Your task to perform on an android device: Play the last video I watched on Youtube Image 0: 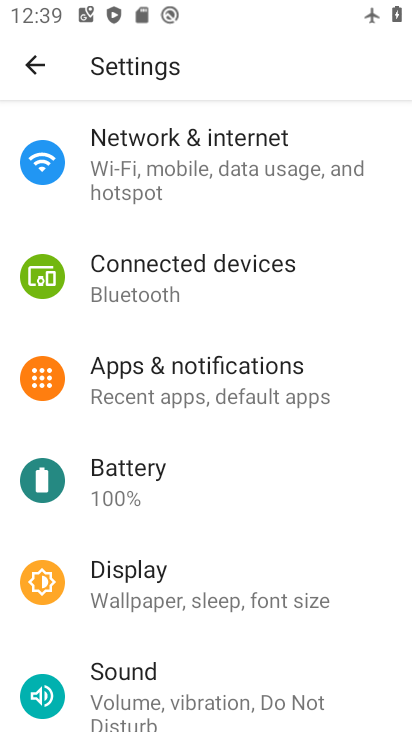
Step 0: press home button
Your task to perform on an android device: Play the last video I watched on Youtube Image 1: 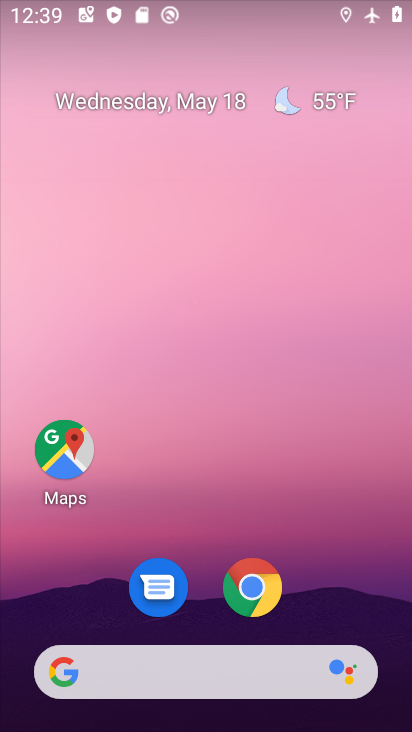
Step 1: drag from (308, 595) to (331, 731)
Your task to perform on an android device: Play the last video I watched on Youtube Image 2: 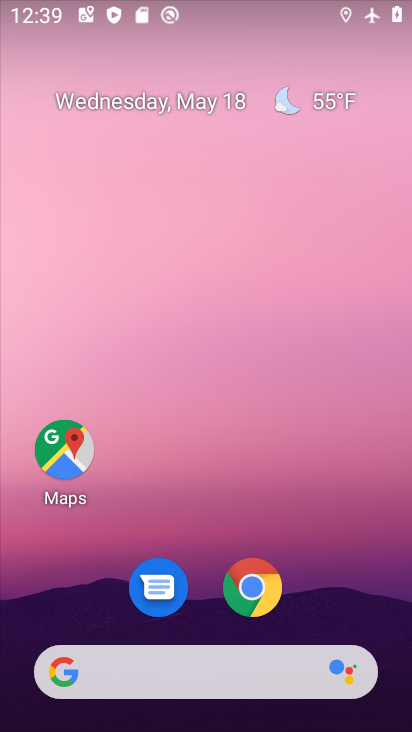
Step 2: drag from (325, 671) to (340, 335)
Your task to perform on an android device: Play the last video I watched on Youtube Image 3: 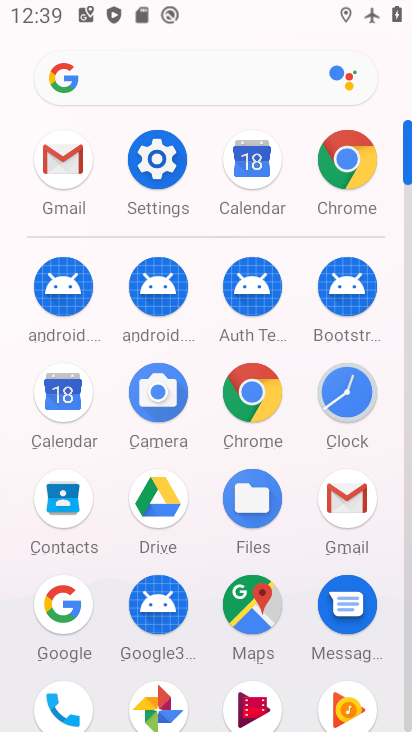
Step 3: drag from (241, 497) to (223, 312)
Your task to perform on an android device: Play the last video I watched on Youtube Image 4: 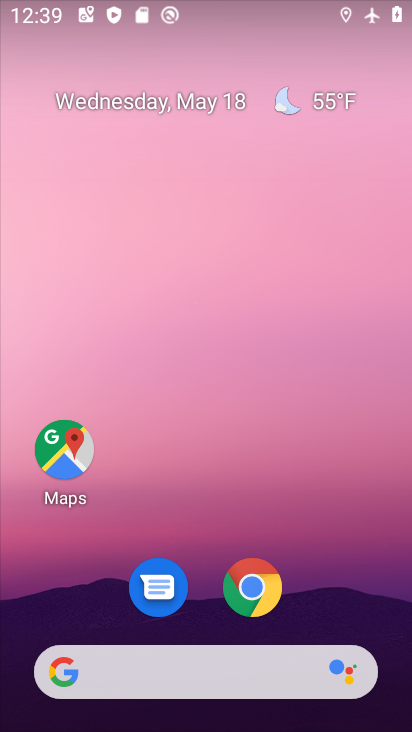
Step 4: drag from (318, 667) to (296, 485)
Your task to perform on an android device: Play the last video I watched on Youtube Image 5: 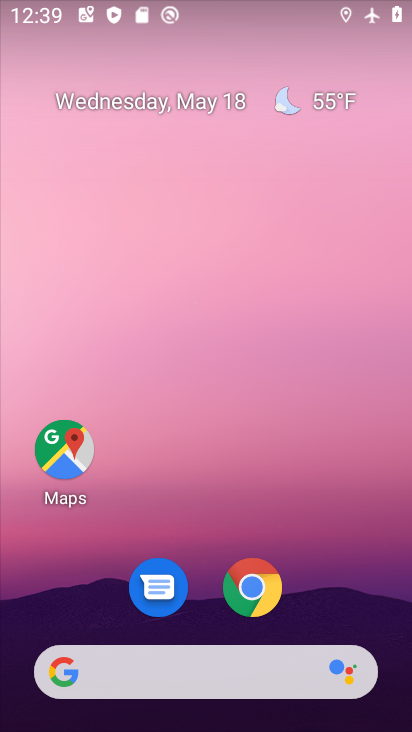
Step 5: drag from (297, 589) to (240, 22)
Your task to perform on an android device: Play the last video I watched on Youtube Image 6: 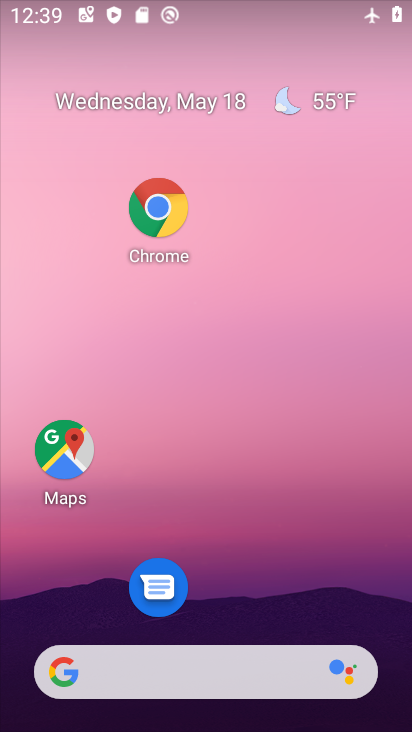
Step 6: drag from (298, 580) to (275, 20)
Your task to perform on an android device: Play the last video I watched on Youtube Image 7: 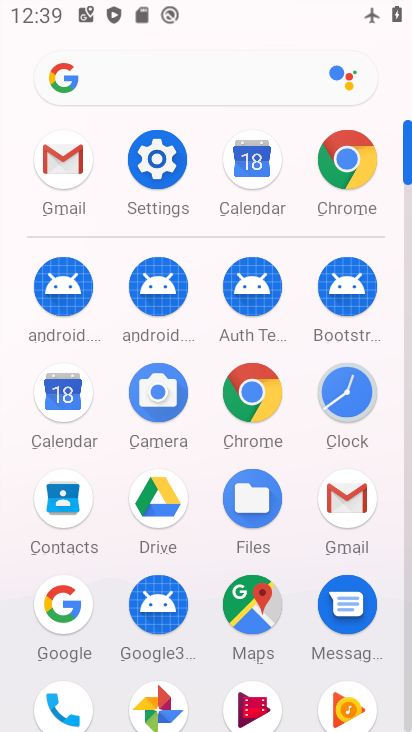
Step 7: drag from (232, 559) to (213, 31)
Your task to perform on an android device: Play the last video I watched on Youtube Image 8: 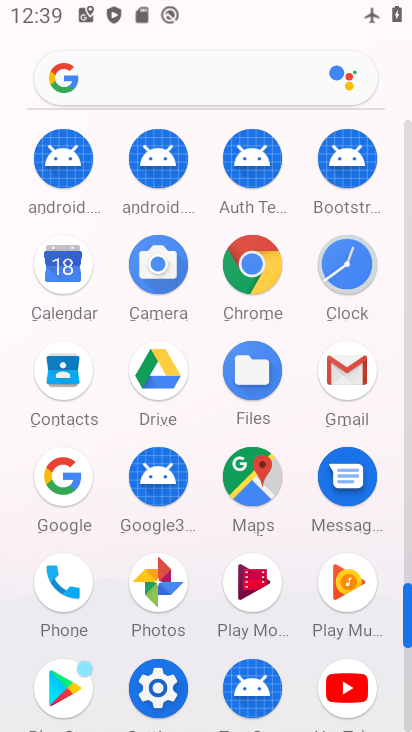
Step 8: drag from (280, 573) to (230, 5)
Your task to perform on an android device: Play the last video I watched on Youtube Image 9: 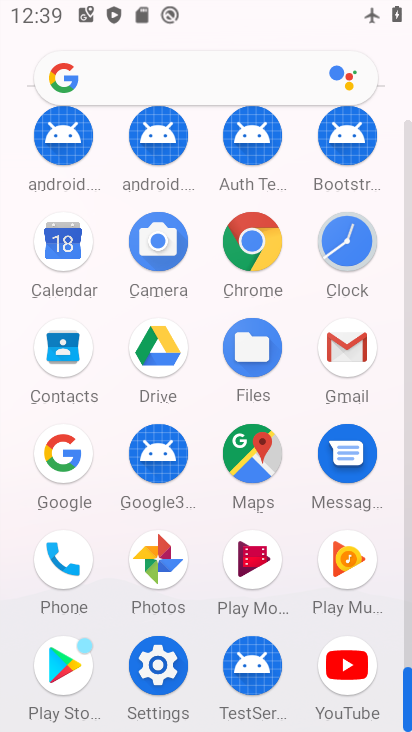
Step 9: click (349, 670)
Your task to perform on an android device: Play the last video I watched on Youtube Image 10: 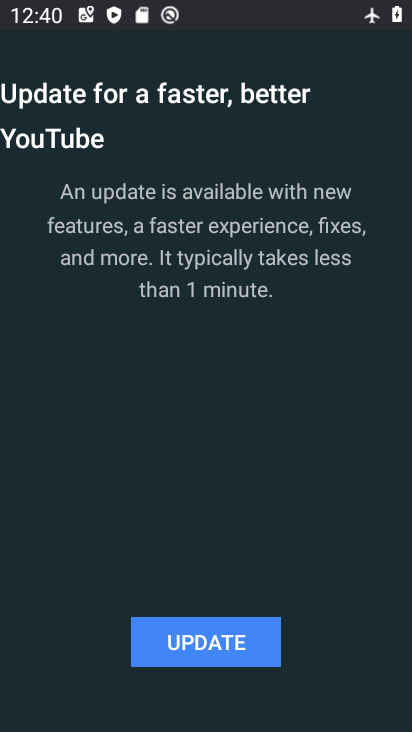
Step 10: click (210, 650)
Your task to perform on an android device: Play the last video I watched on Youtube Image 11: 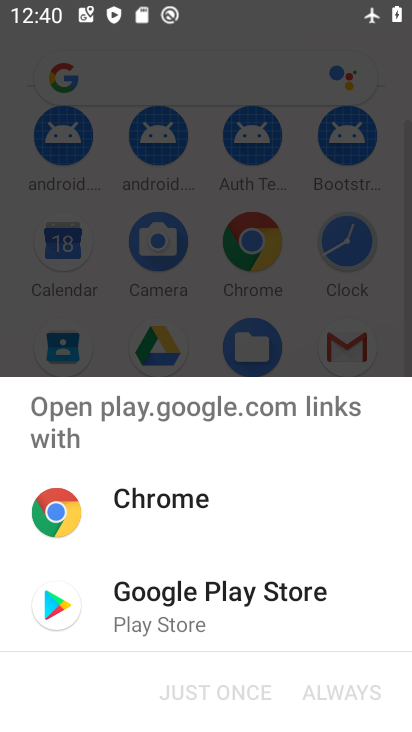
Step 11: click (185, 610)
Your task to perform on an android device: Play the last video I watched on Youtube Image 12: 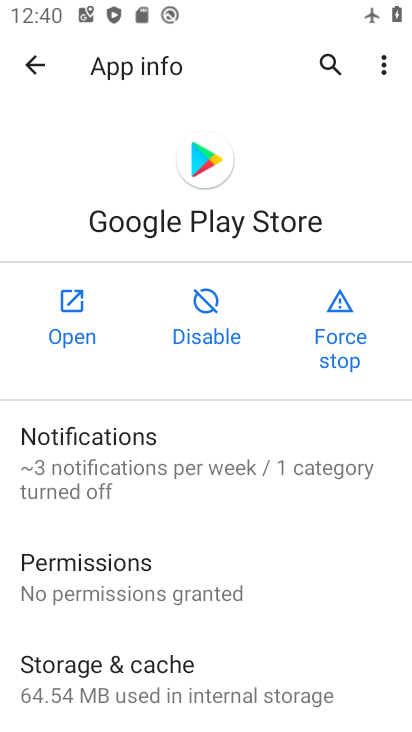
Step 12: click (33, 69)
Your task to perform on an android device: Play the last video I watched on Youtube Image 13: 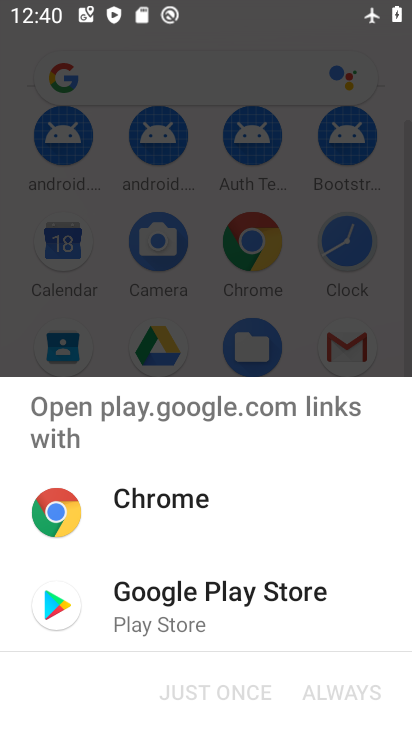
Step 13: click (185, 625)
Your task to perform on an android device: Play the last video I watched on Youtube Image 14: 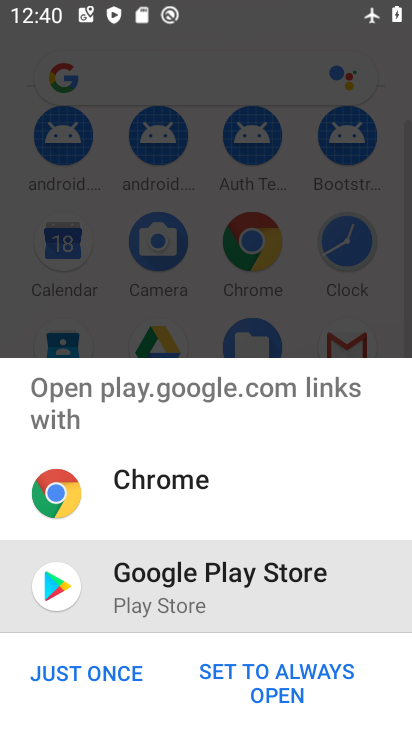
Step 14: click (252, 670)
Your task to perform on an android device: Play the last video I watched on Youtube Image 15: 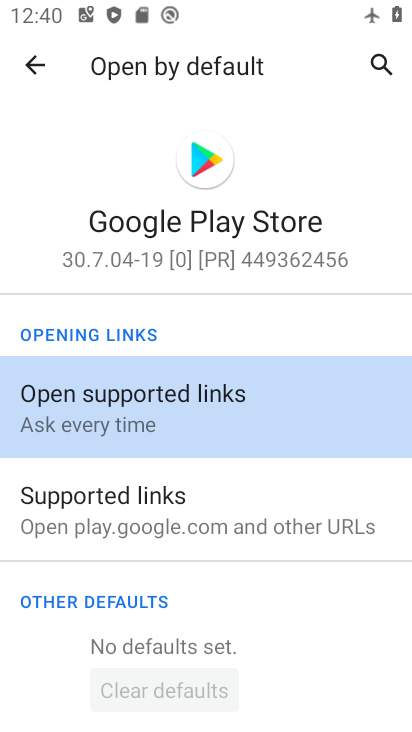
Step 15: click (84, 404)
Your task to perform on an android device: Play the last video I watched on Youtube Image 16: 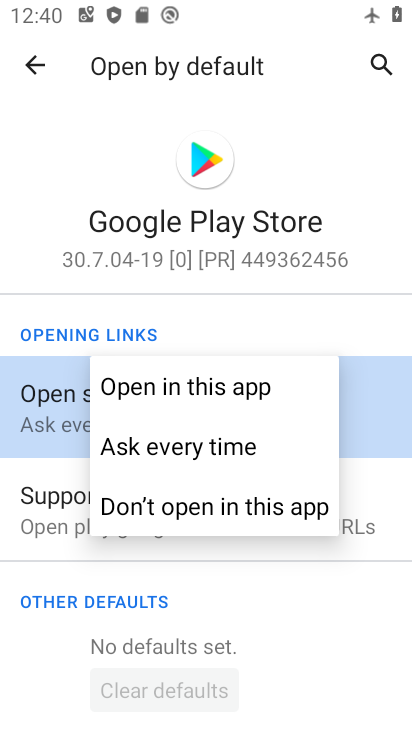
Step 16: click (187, 393)
Your task to perform on an android device: Play the last video I watched on Youtube Image 17: 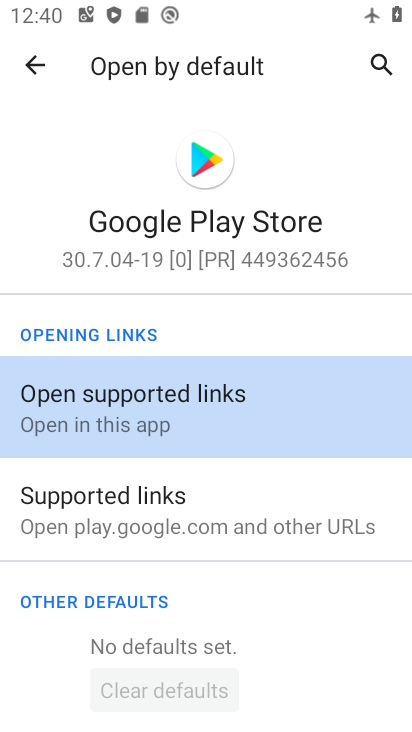
Step 17: click (16, 62)
Your task to perform on an android device: Play the last video I watched on Youtube Image 18: 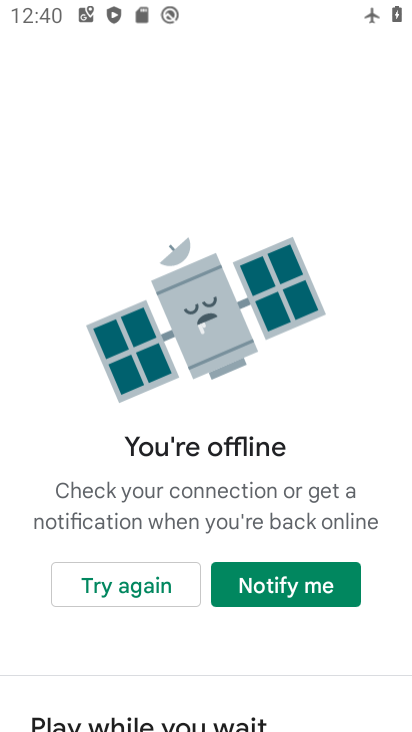
Step 18: click (114, 590)
Your task to perform on an android device: Play the last video I watched on Youtube Image 19: 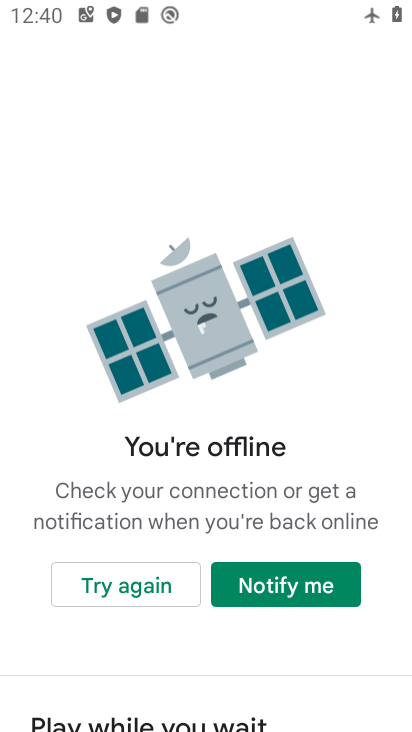
Step 19: task complete